Your task to perform on an android device: Open Amazon Image 0: 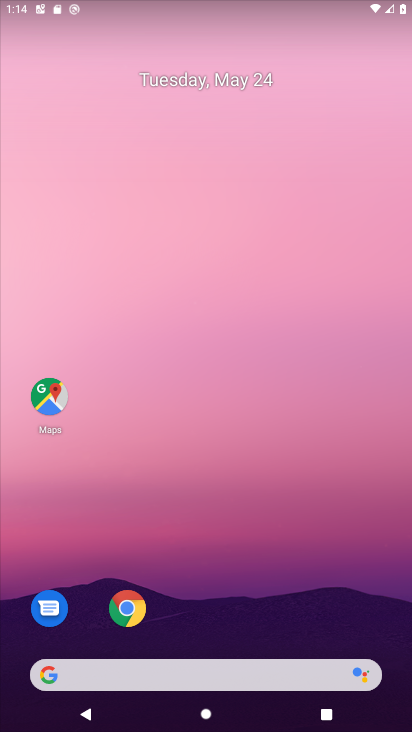
Step 0: click (113, 607)
Your task to perform on an android device: Open Amazon Image 1: 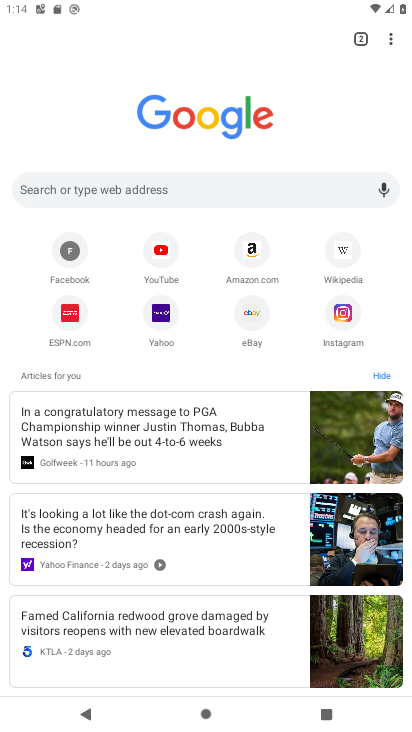
Step 1: click (242, 254)
Your task to perform on an android device: Open Amazon Image 2: 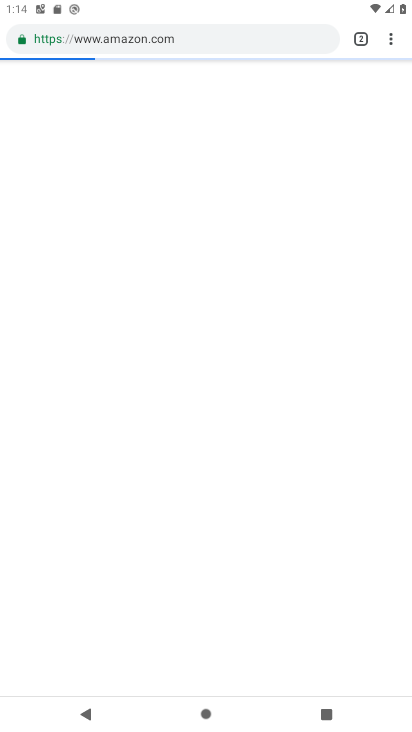
Step 2: task complete